Your task to perform on an android device: set the timer Image 0: 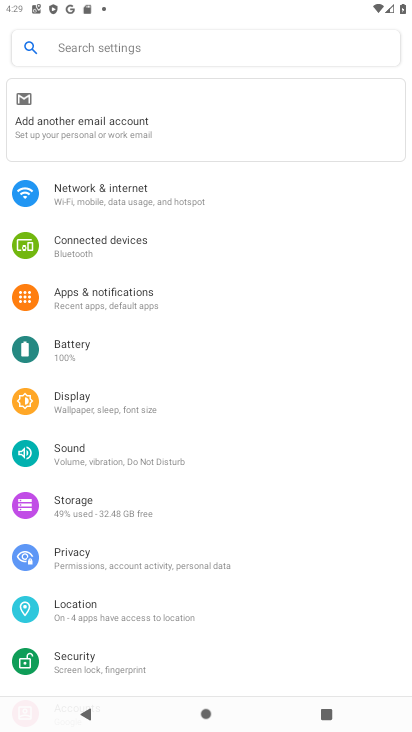
Step 0: press home button
Your task to perform on an android device: set the timer Image 1: 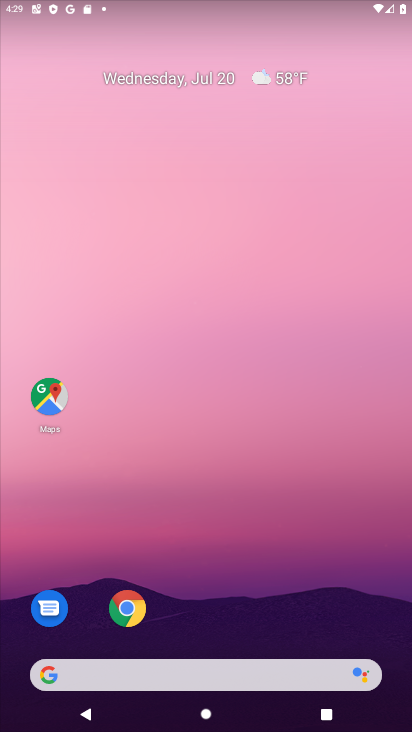
Step 1: drag from (179, 640) to (196, 0)
Your task to perform on an android device: set the timer Image 2: 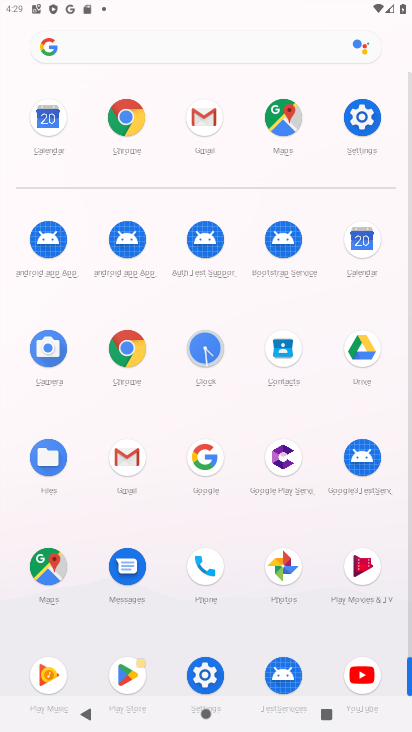
Step 2: click (202, 360)
Your task to perform on an android device: set the timer Image 3: 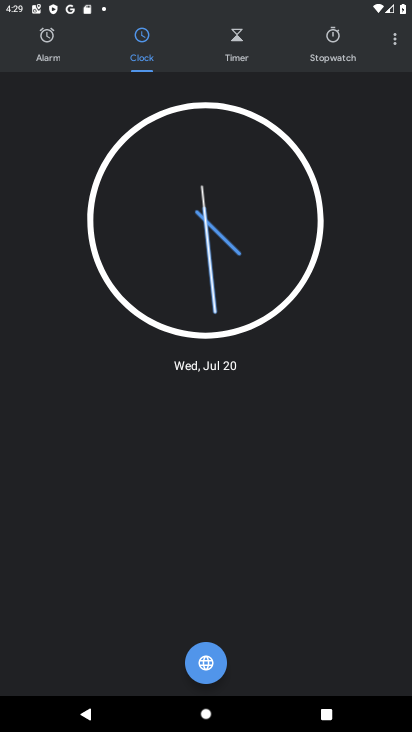
Step 3: click (236, 44)
Your task to perform on an android device: set the timer Image 4: 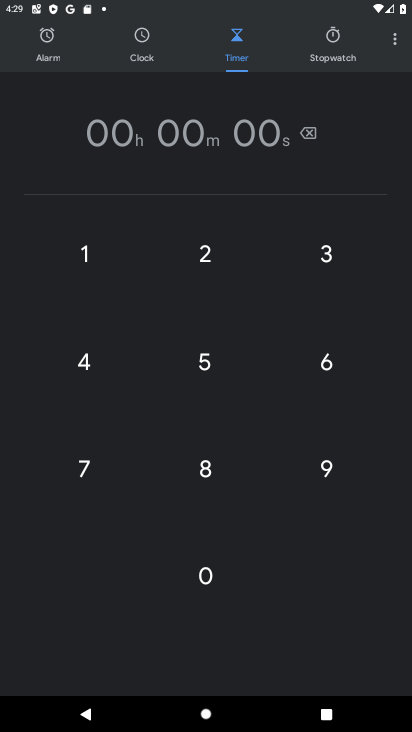
Step 4: click (325, 468)
Your task to perform on an android device: set the timer Image 5: 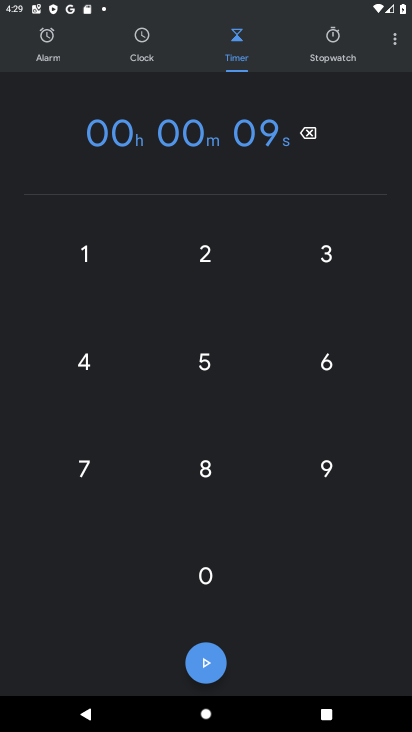
Step 5: click (205, 366)
Your task to perform on an android device: set the timer Image 6: 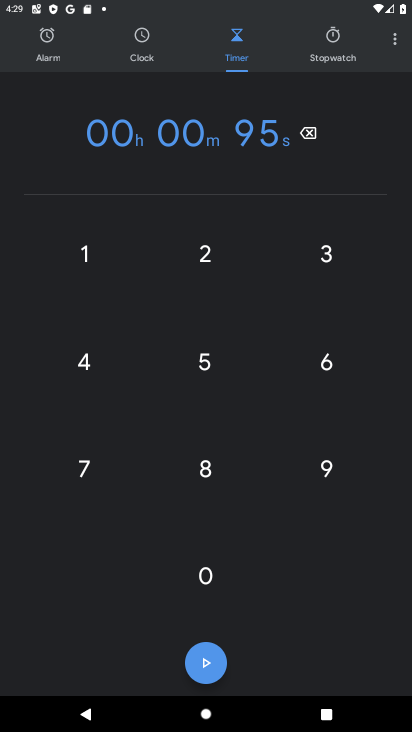
Step 6: click (75, 482)
Your task to perform on an android device: set the timer Image 7: 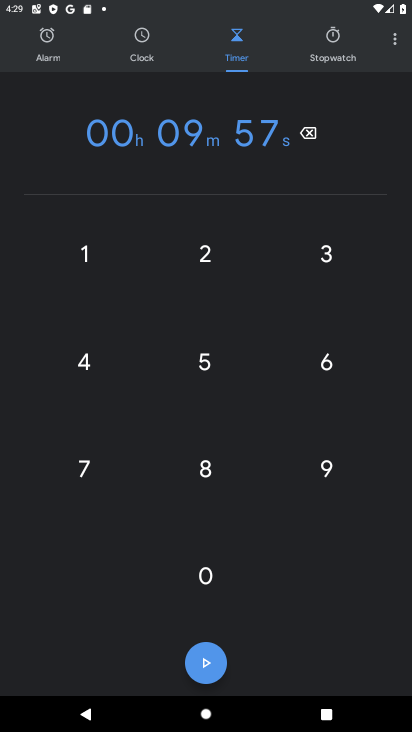
Step 7: click (204, 670)
Your task to perform on an android device: set the timer Image 8: 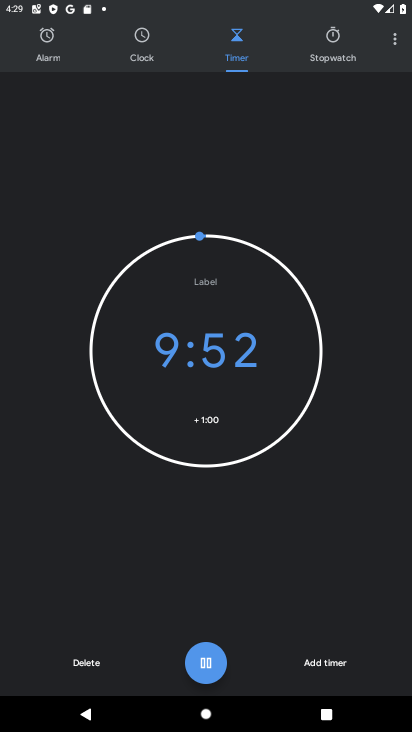
Step 8: task complete